Your task to perform on an android device: install app "Upside-Cash back on gas & food" Image 0: 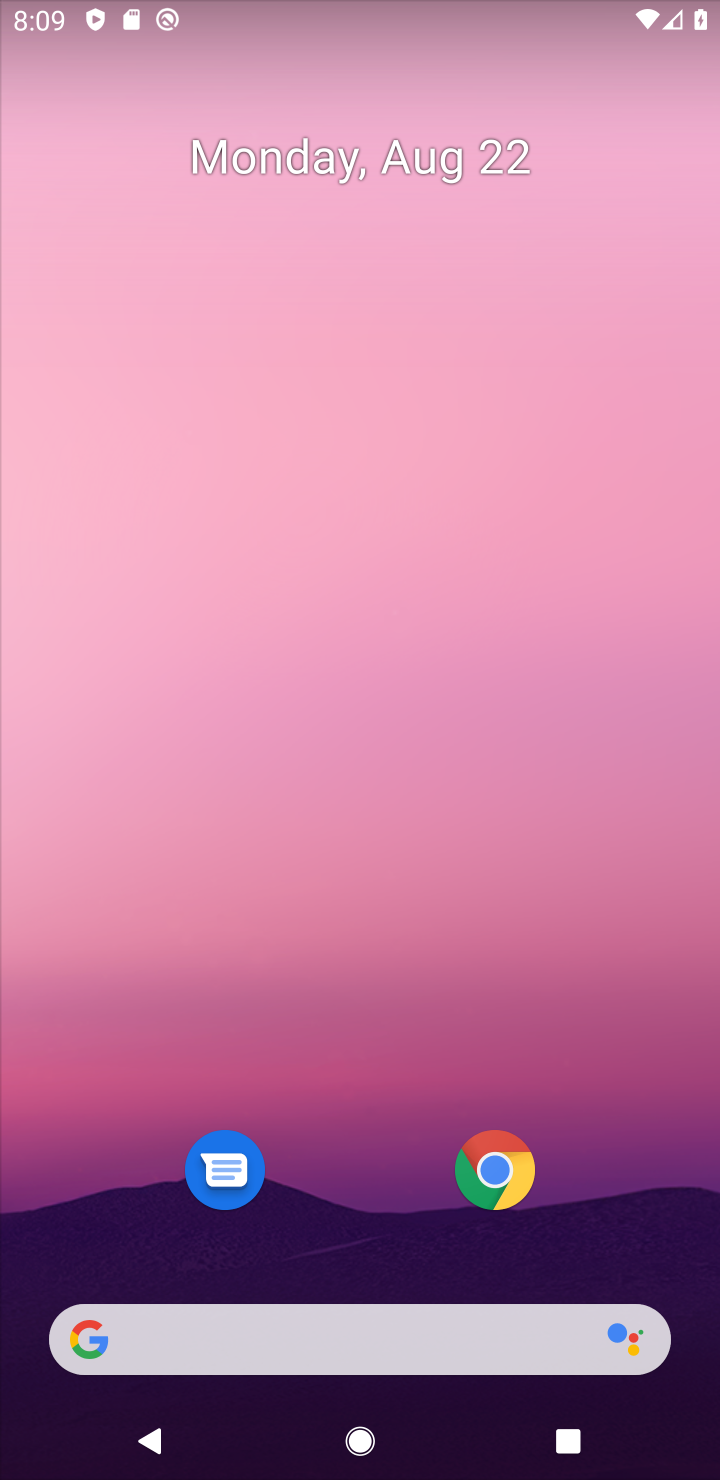
Step 0: drag from (386, 1262) to (599, 0)
Your task to perform on an android device: install app "Upside-Cash back on gas & food" Image 1: 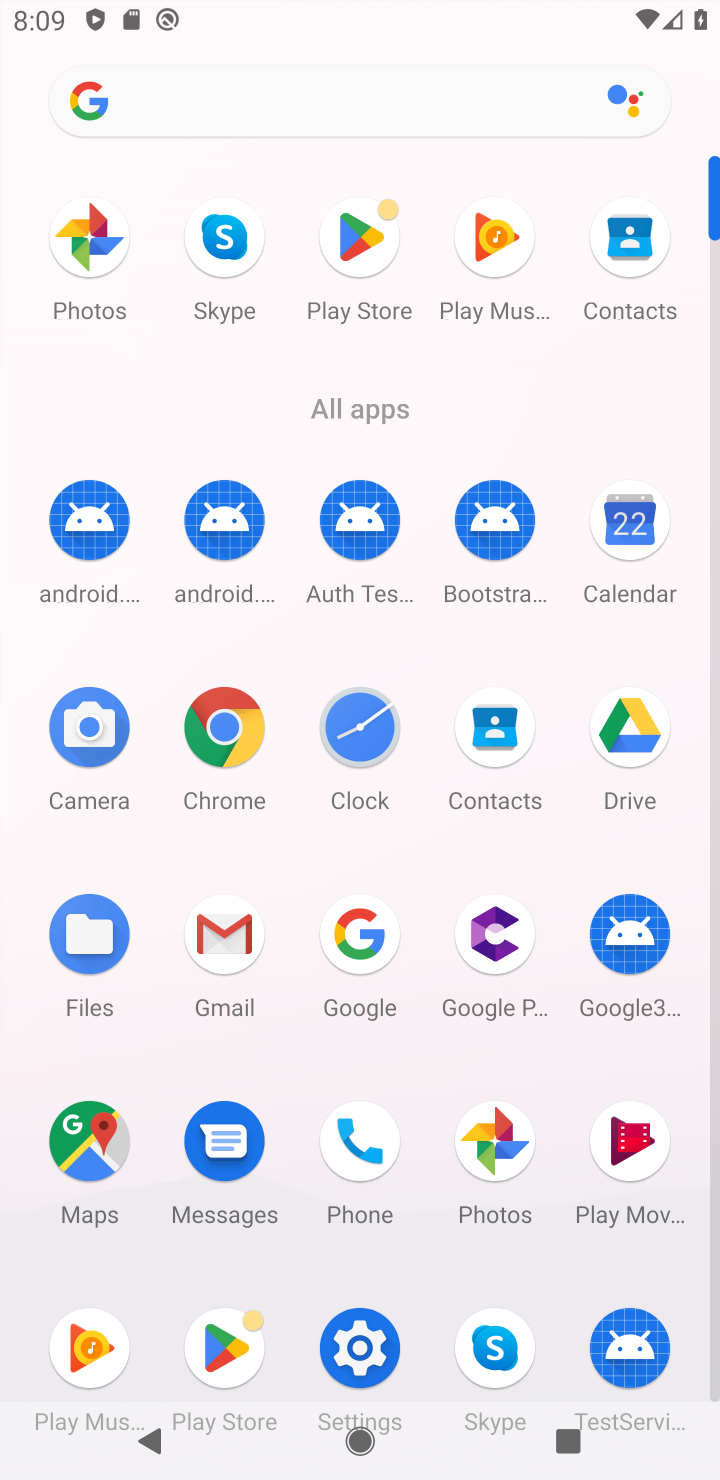
Step 1: click (386, 228)
Your task to perform on an android device: install app "Upside-Cash back on gas & food" Image 2: 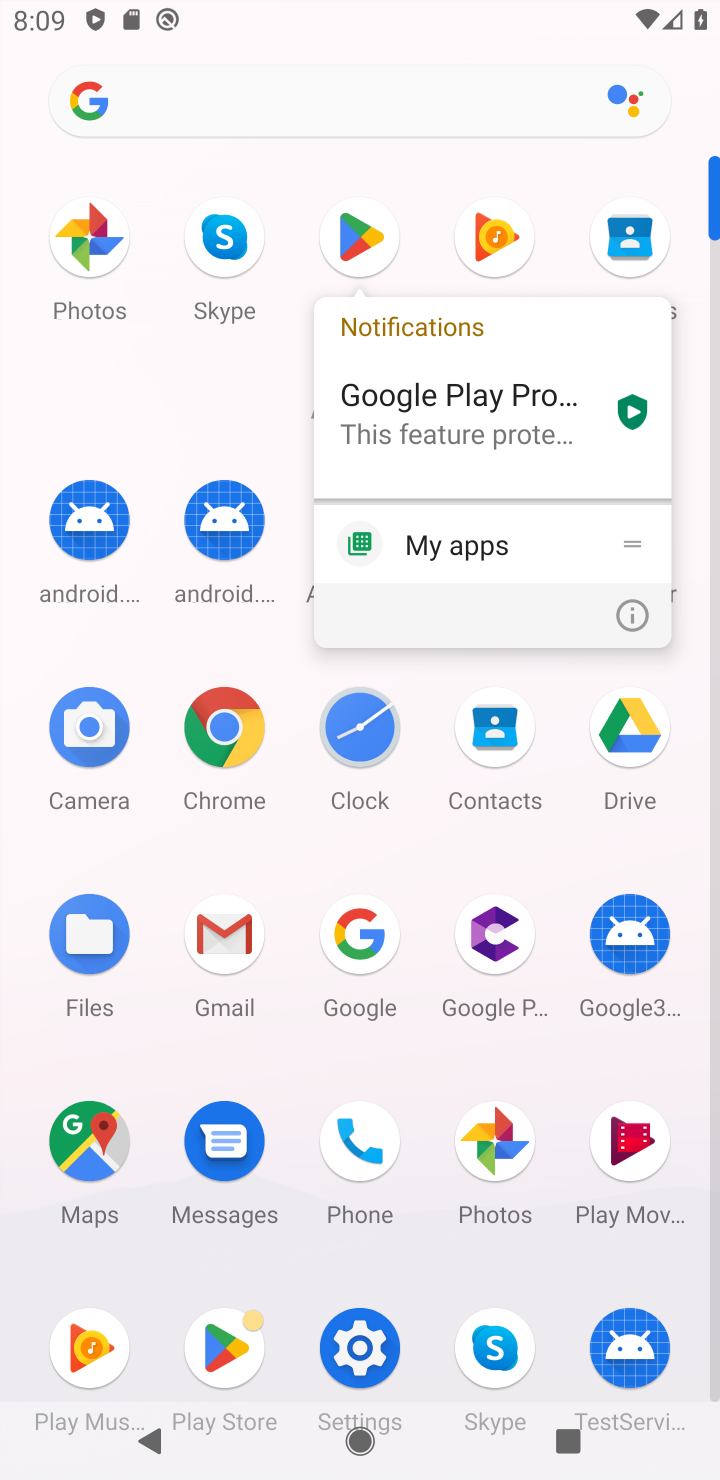
Step 2: click (380, 228)
Your task to perform on an android device: install app "Upside-Cash back on gas & food" Image 3: 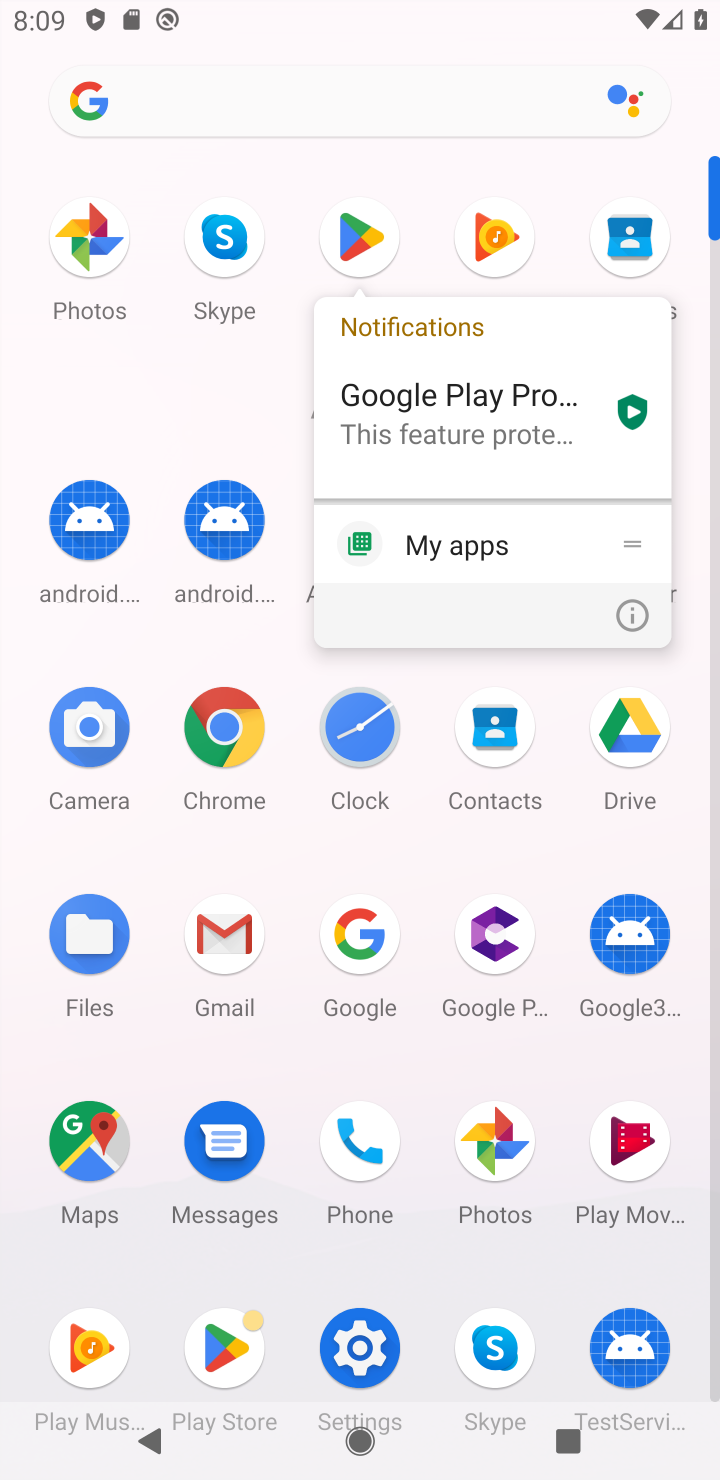
Step 3: click (367, 224)
Your task to perform on an android device: install app "Upside-Cash back on gas & food" Image 4: 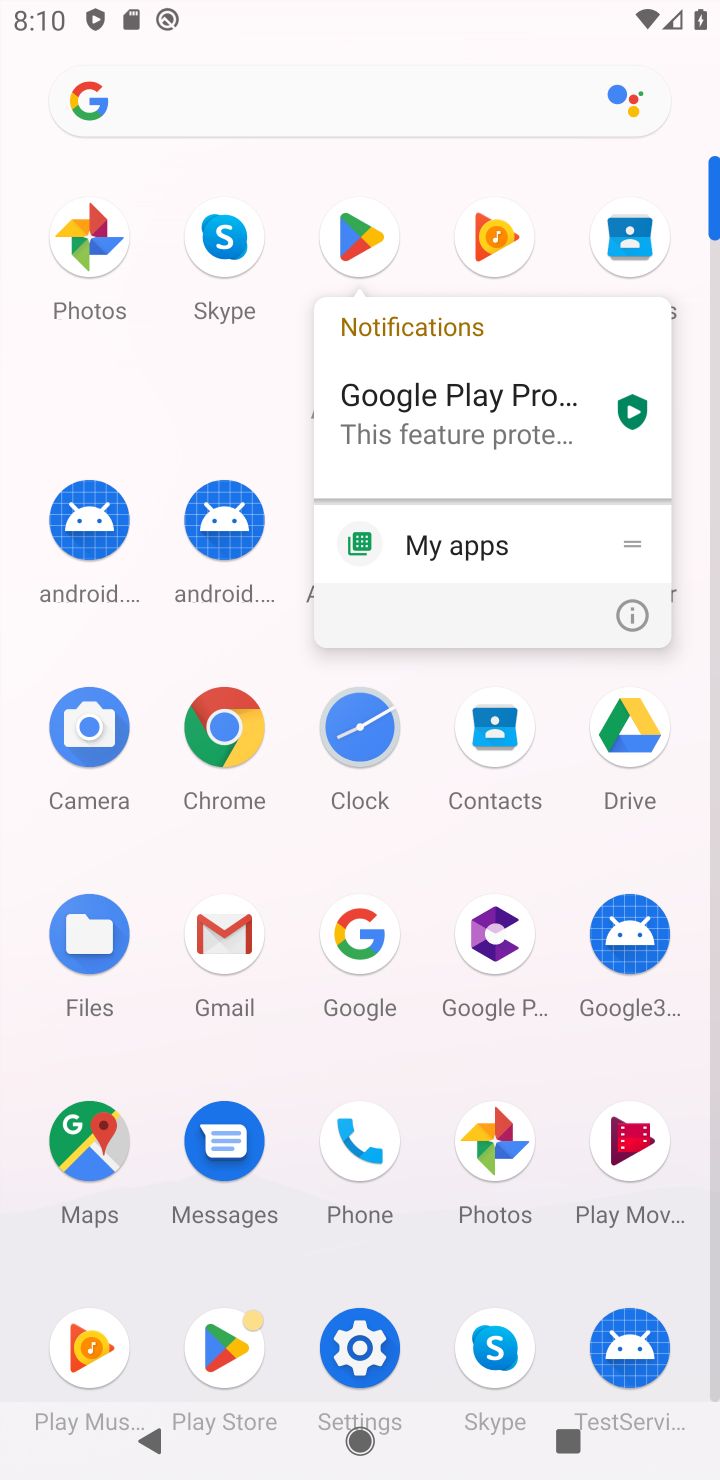
Step 4: click (352, 234)
Your task to perform on an android device: install app "Upside-Cash back on gas & food" Image 5: 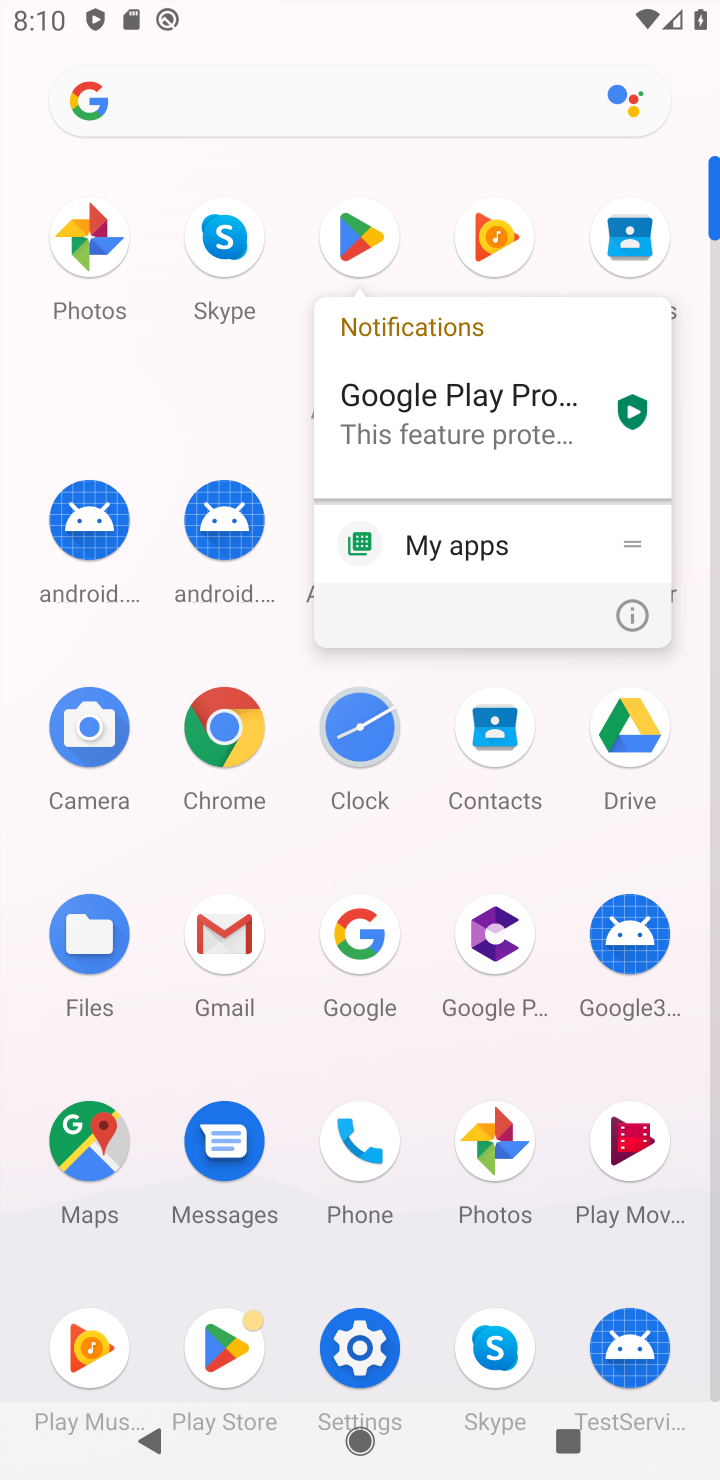
Step 5: click (354, 240)
Your task to perform on an android device: install app "Upside-Cash back on gas & food" Image 6: 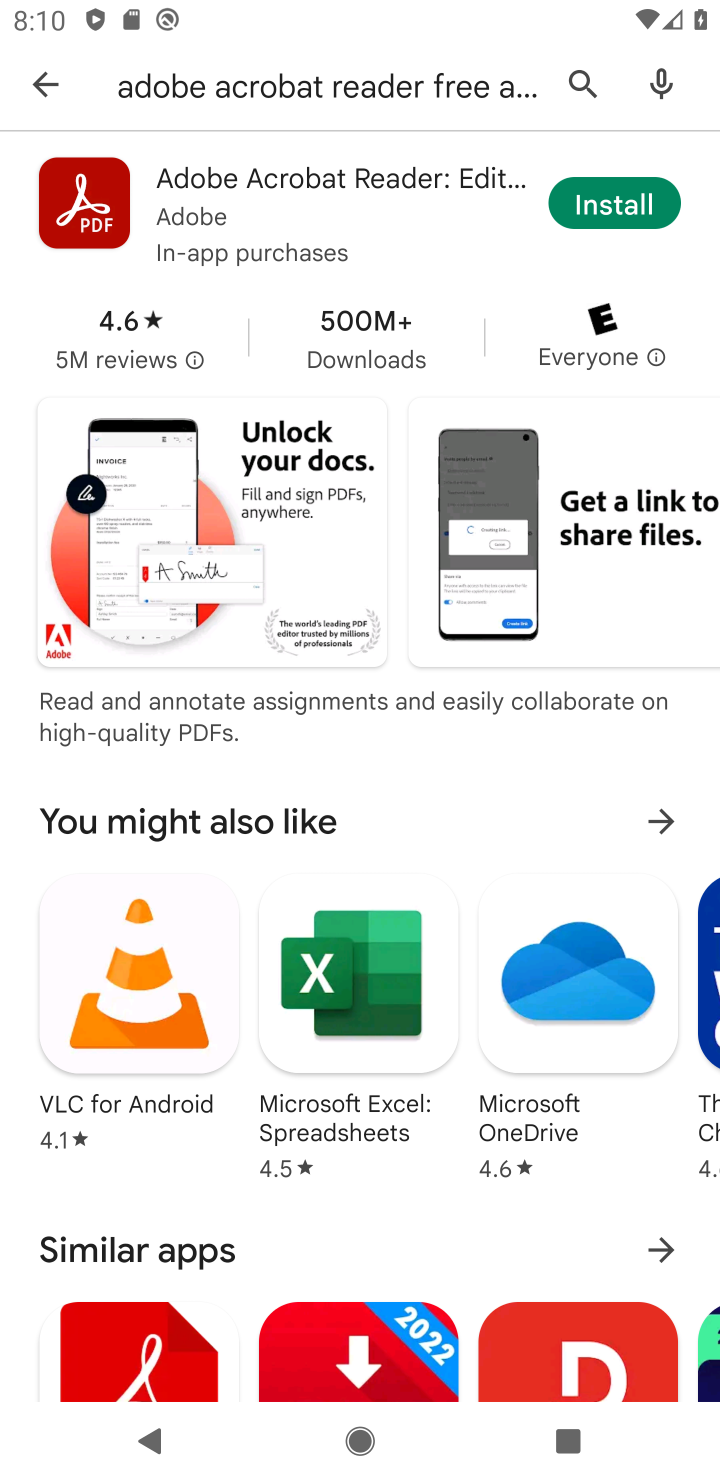
Step 6: click (572, 85)
Your task to perform on an android device: install app "Upside-Cash back on gas & food" Image 7: 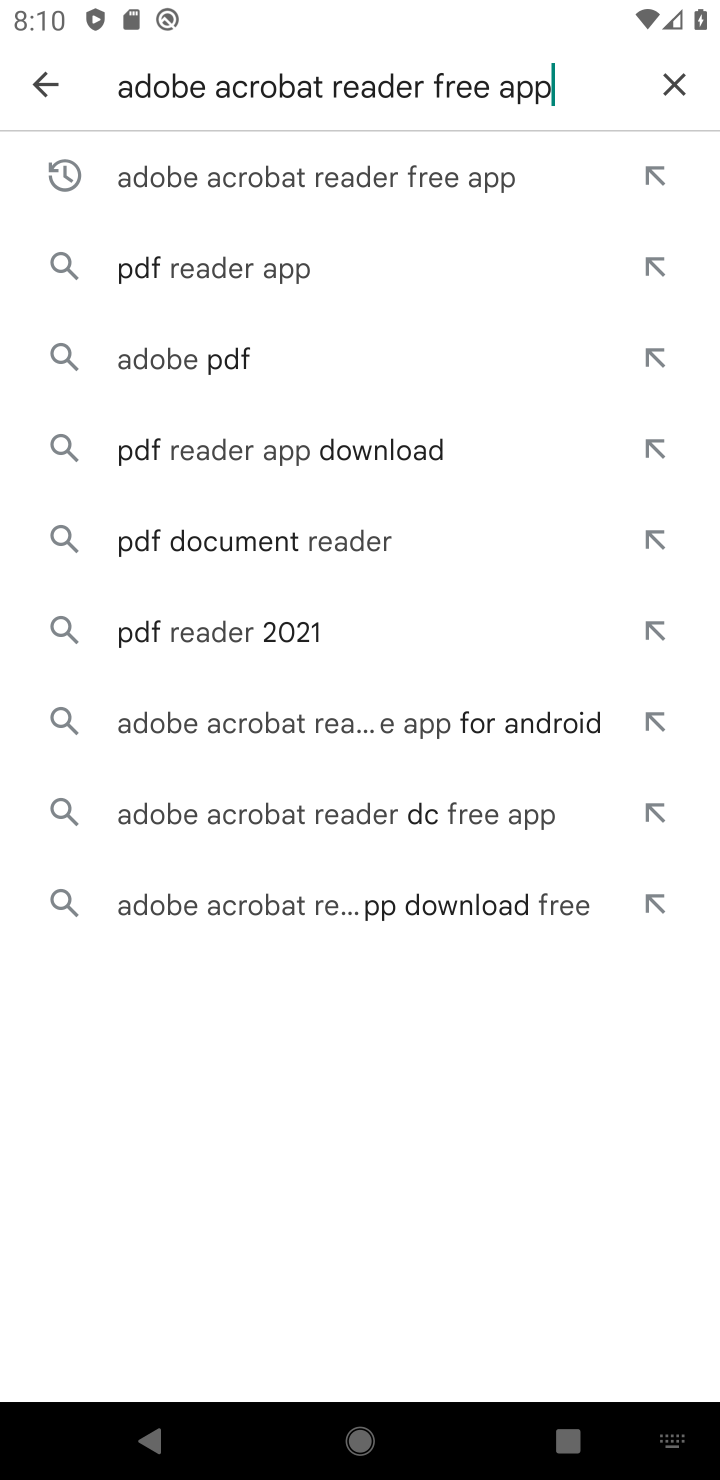
Step 7: click (679, 77)
Your task to perform on an android device: install app "Upside-Cash back on gas & food" Image 8: 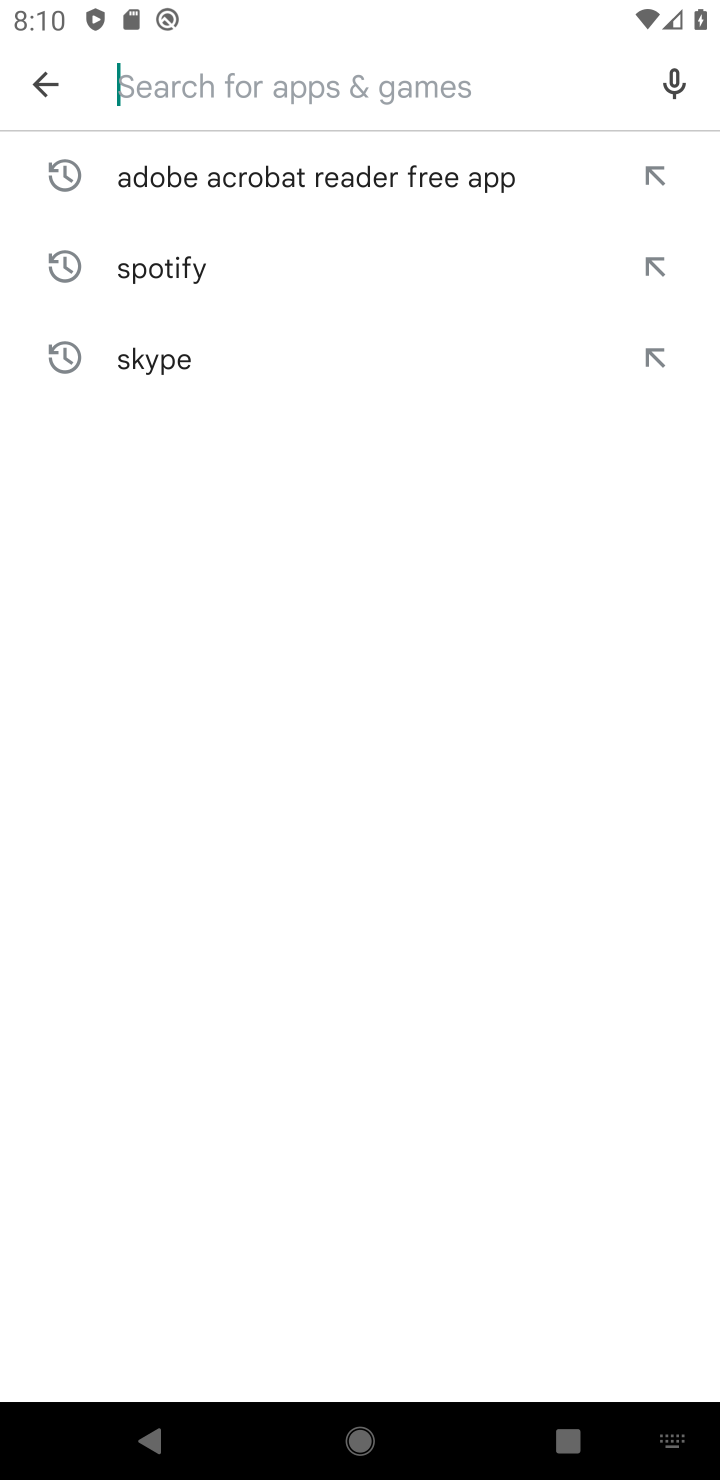
Step 8: click (243, 87)
Your task to perform on an android device: install app "Upside-Cash back on gas & food" Image 9: 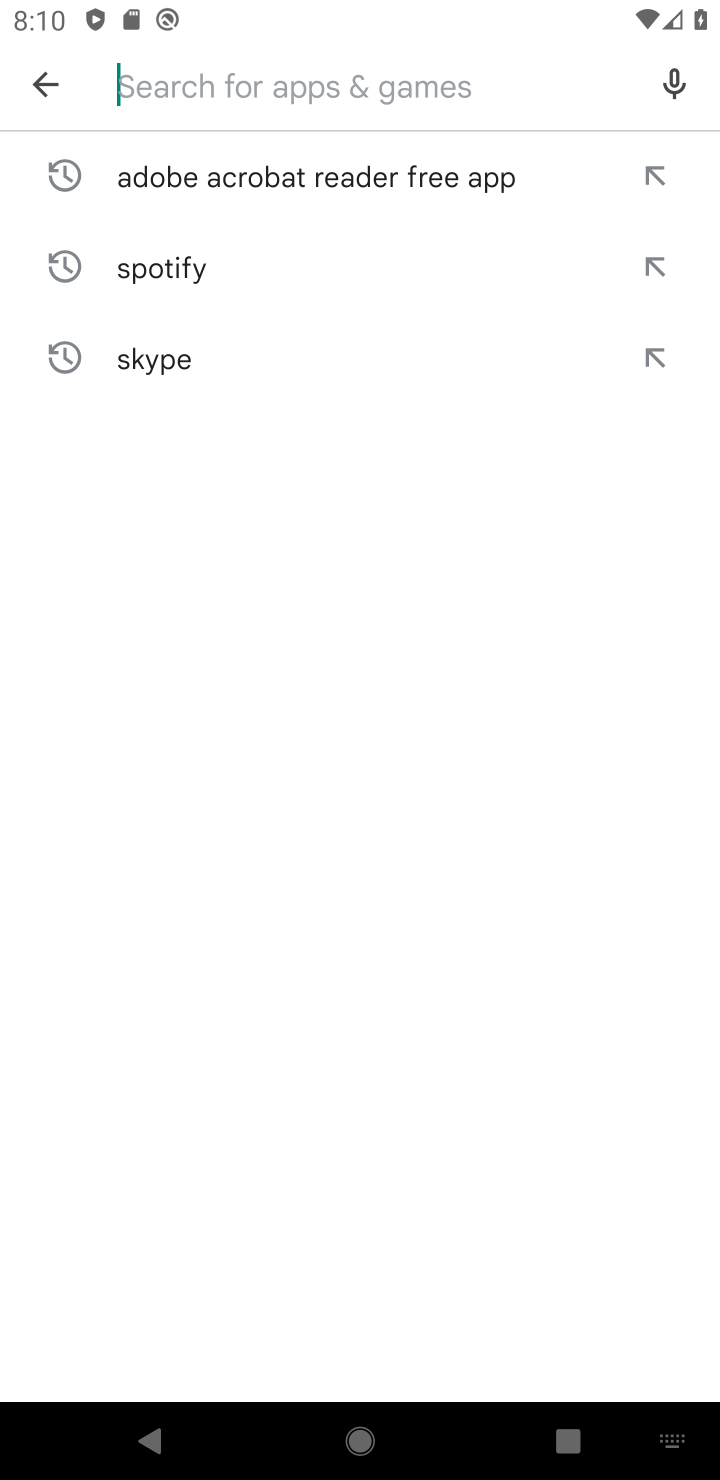
Step 9: type "upside"
Your task to perform on an android device: install app "Upside-Cash back on gas & food" Image 10: 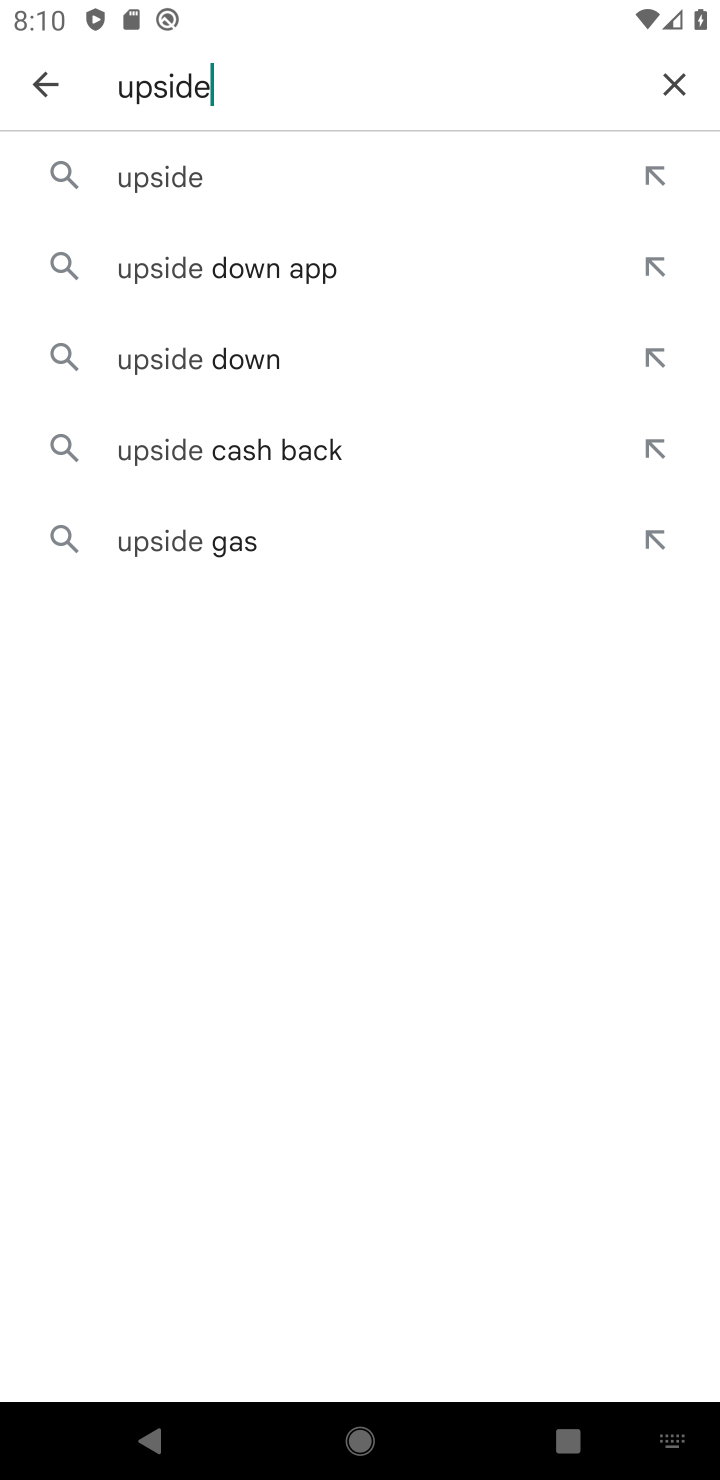
Step 10: click (202, 167)
Your task to perform on an android device: install app "Upside-Cash back on gas & food" Image 11: 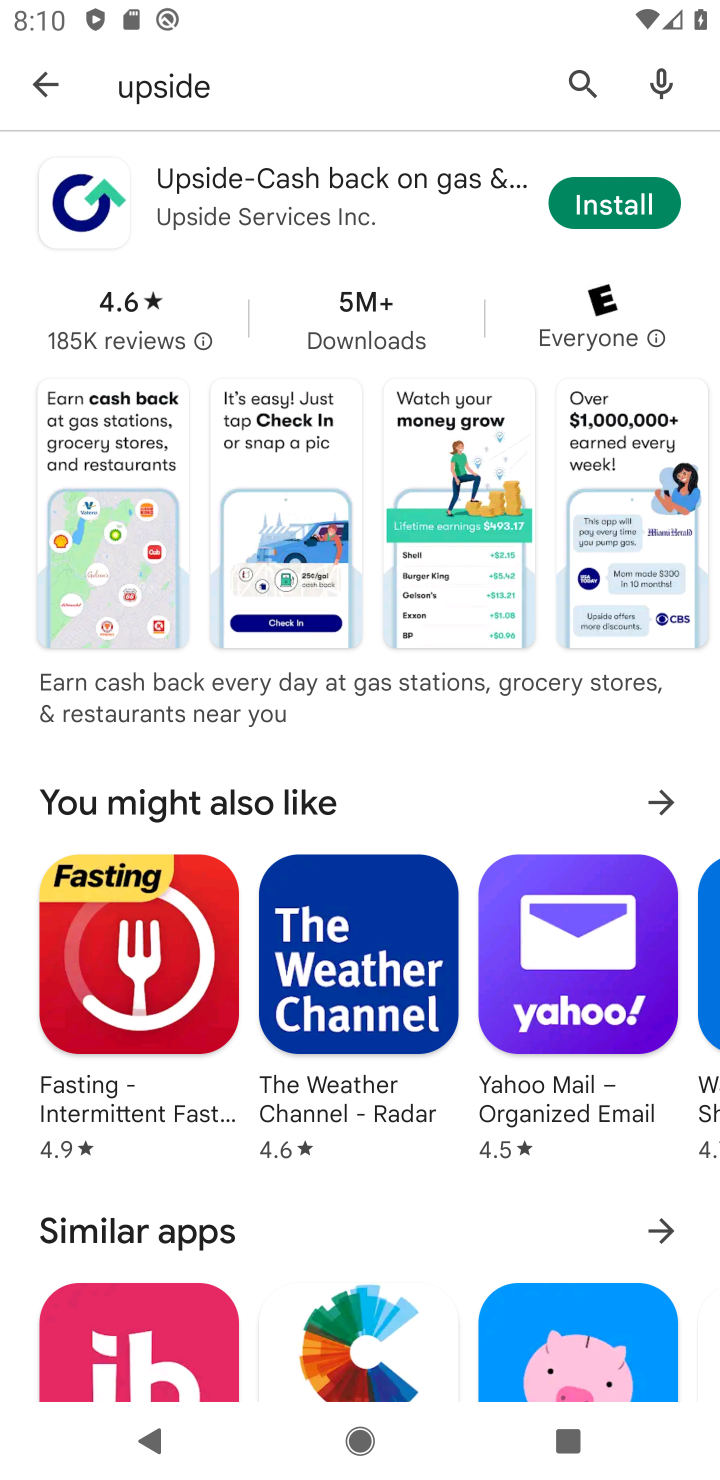
Step 11: click (601, 217)
Your task to perform on an android device: install app "Upside-Cash back on gas & food" Image 12: 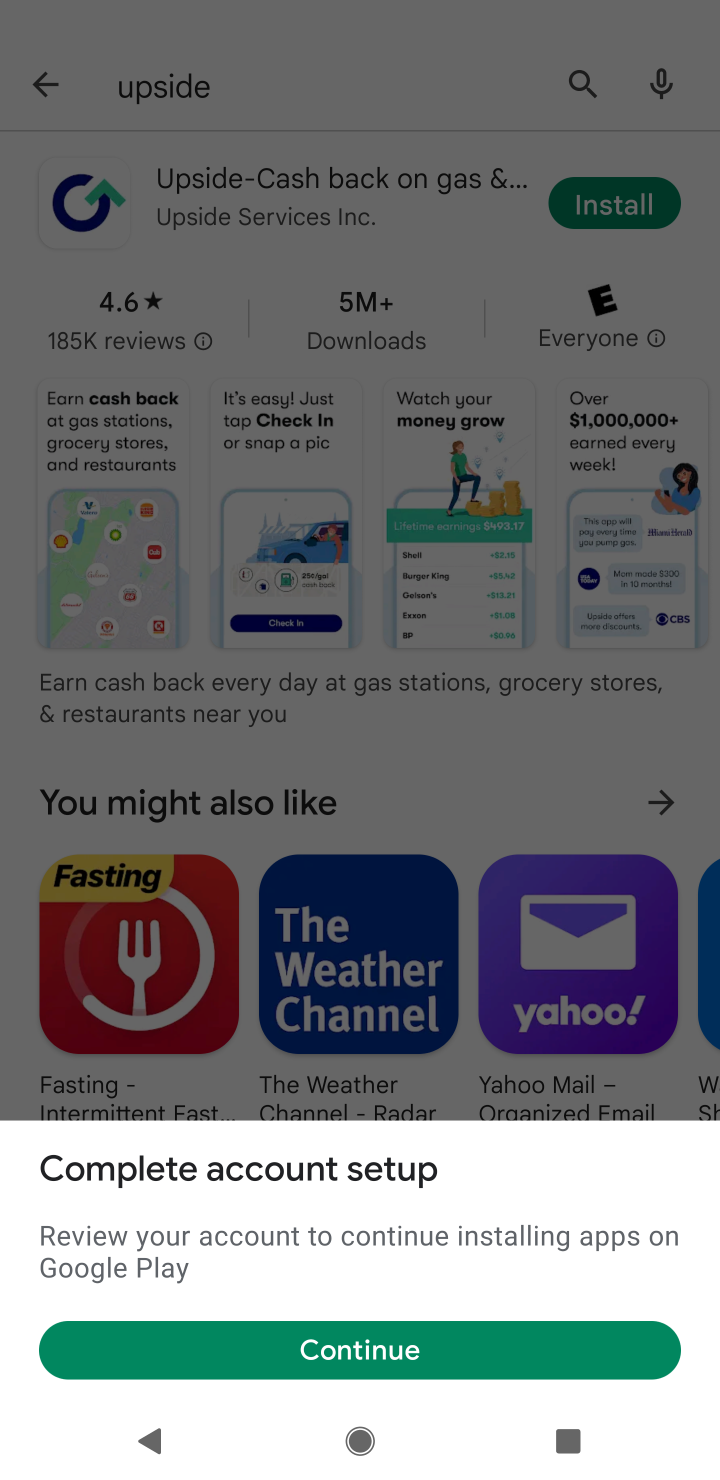
Step 12: click (372, 1362)
Your task to perform on an android device: install app "Upside-Cash back on gas & food" Image 13: 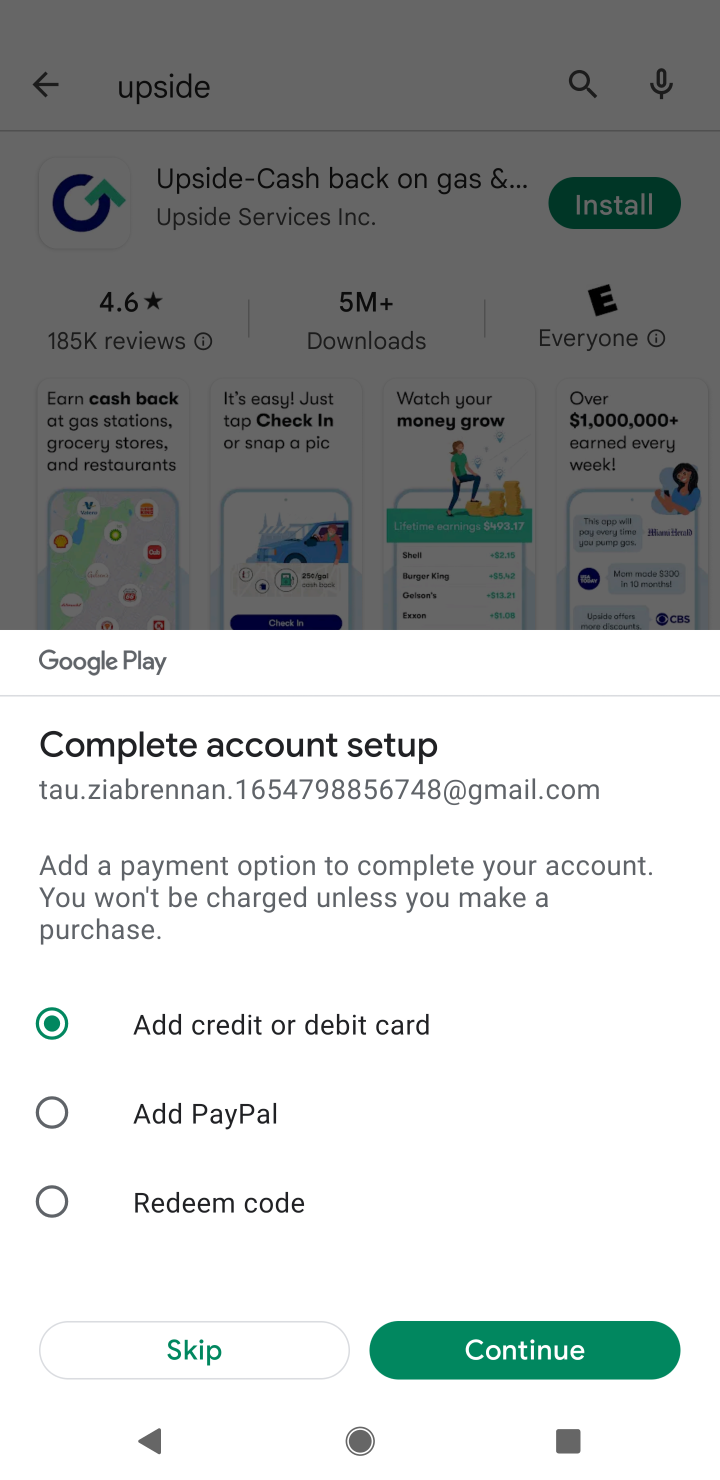
Step 13: click (208, 1341)
Your task to perform on an android device: install app "Upside-Cash back on gas & food" Image 14: 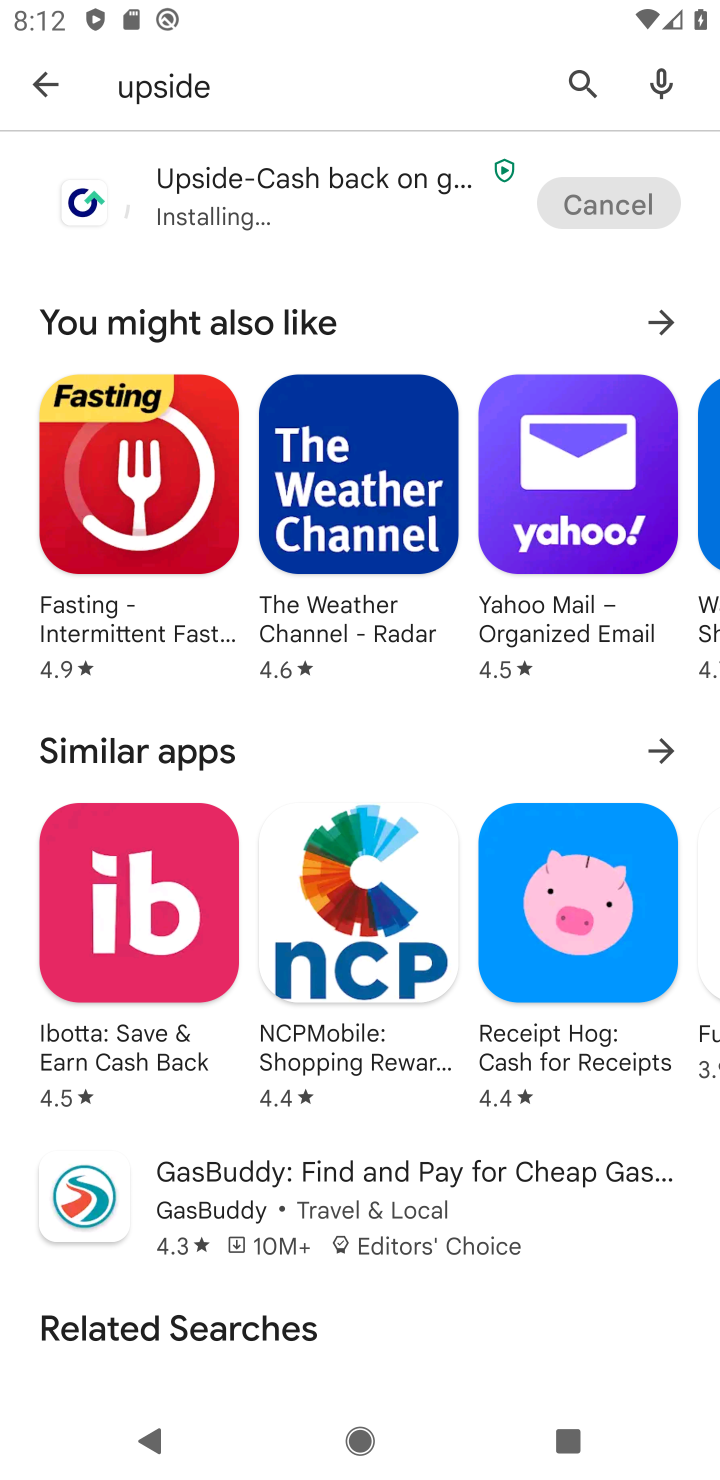
Step 14: press back button
Your task to perform on an android device: install app "Upside-Cash back on gas & food" Image 15: 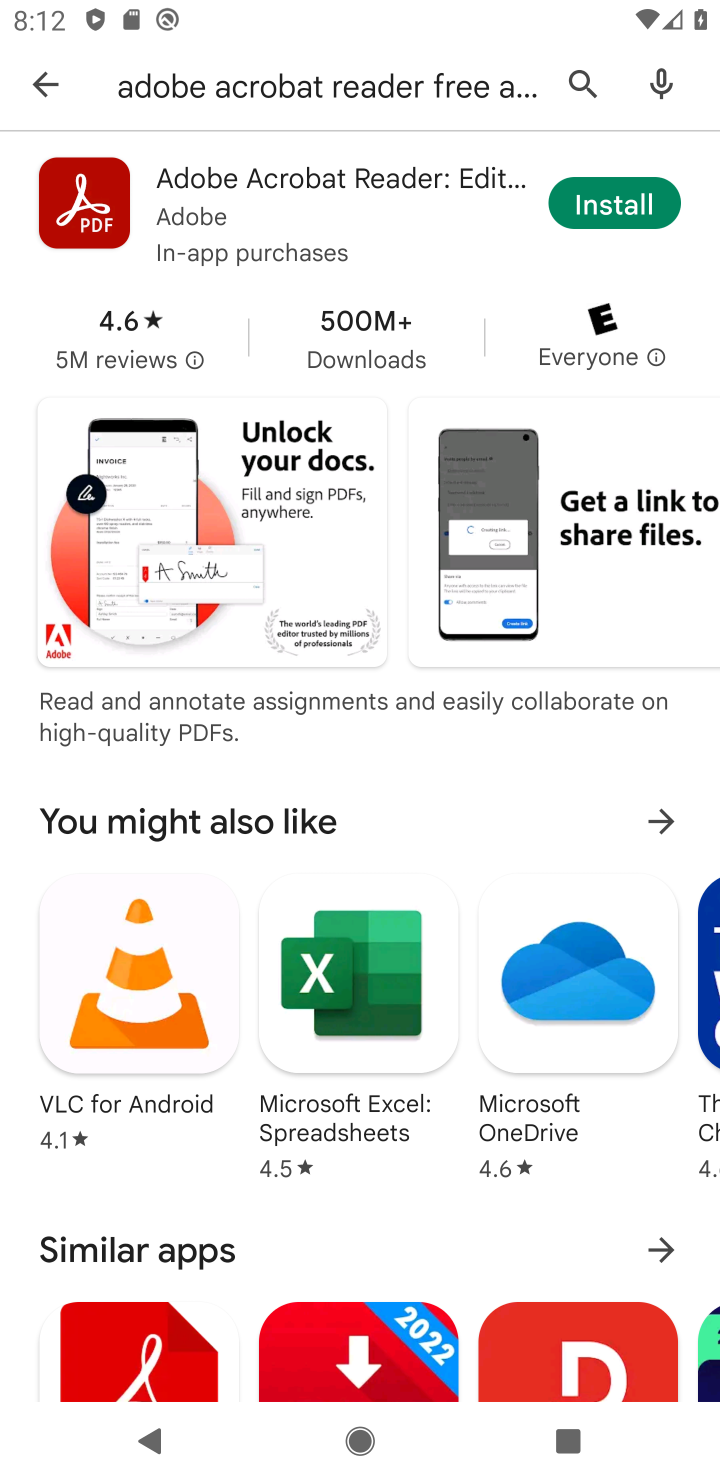
Step 15: click (591, 86)
Your task to perform on an android device: install app "Upside-Cash back on gas & food" Image 16: 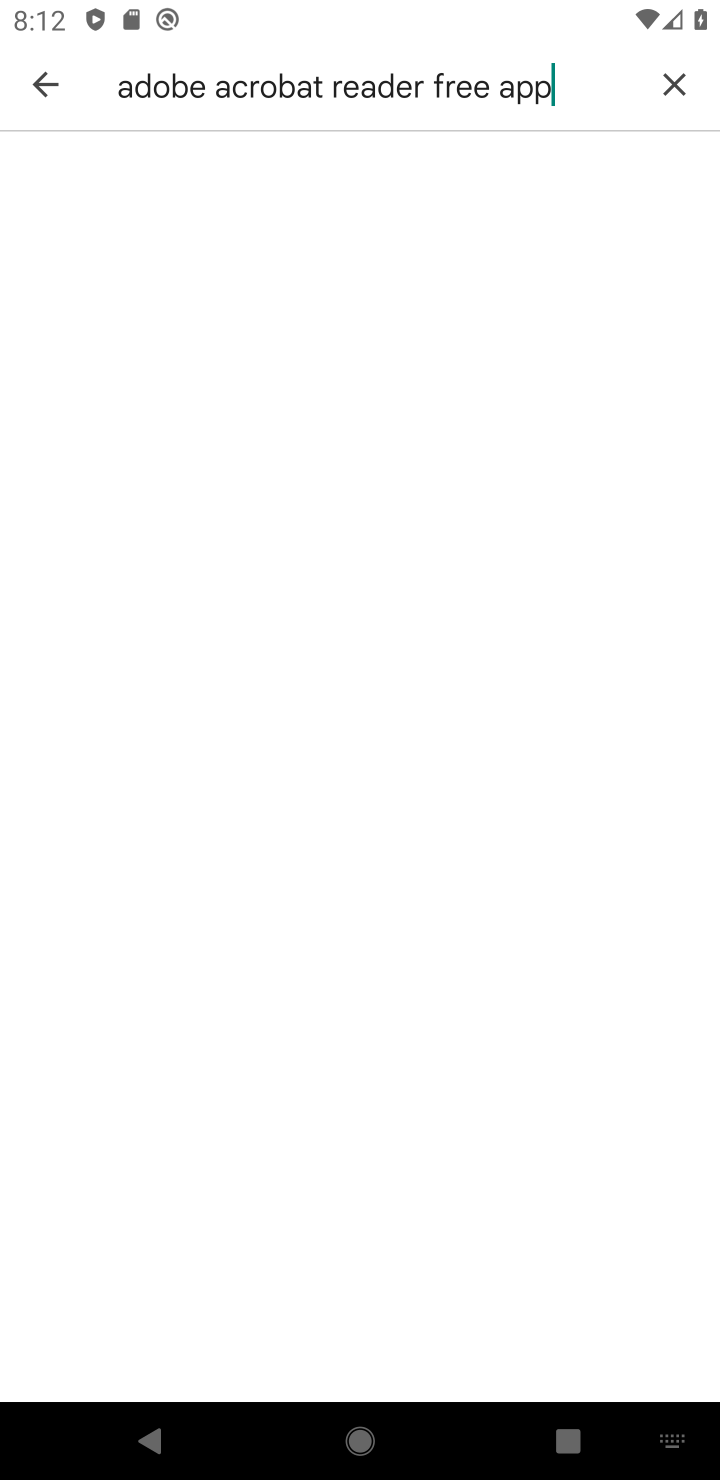
Step 16: click (683, 70)
Your task to perform on an android device: install app "Upside-Cash back on gas & food" Image 17: 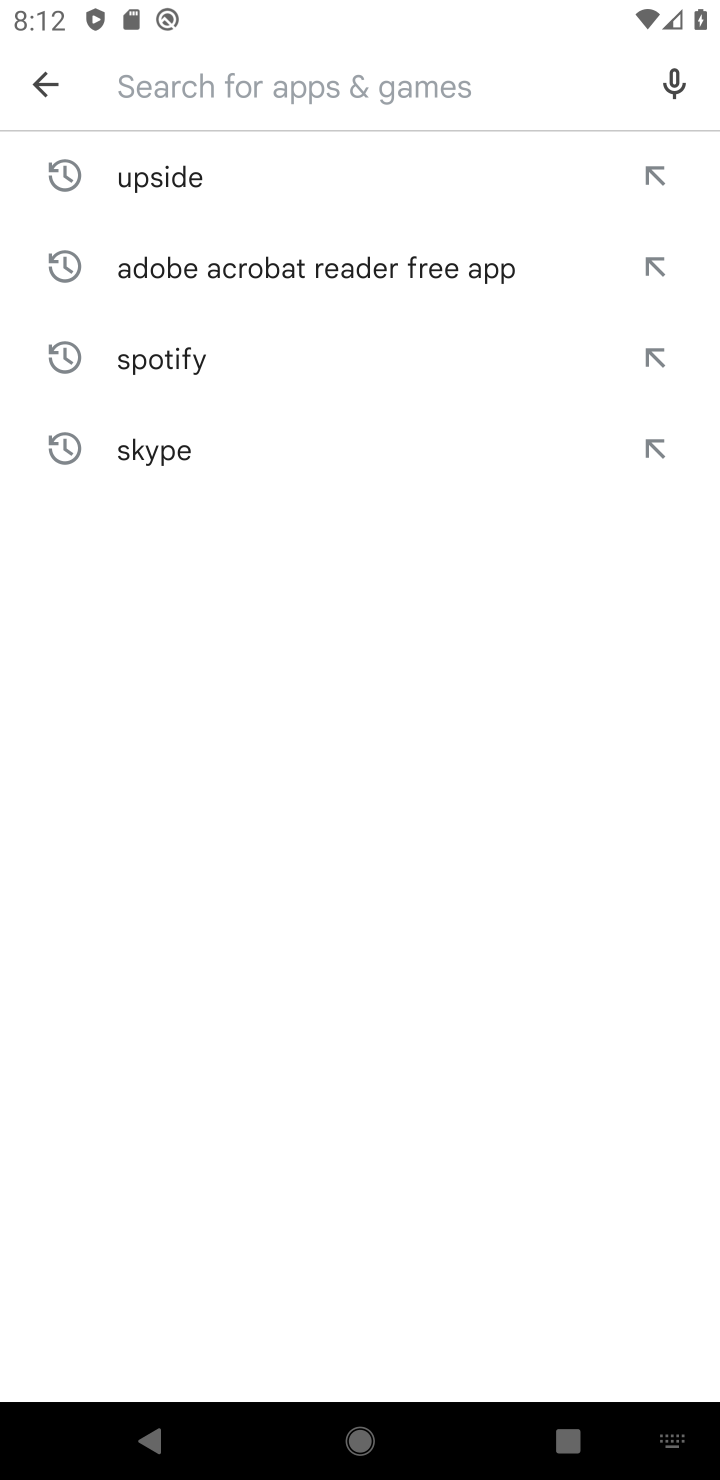
Step 17: click (234, 157)
Your task to perform on an android device: install app "Upside-Cash back on gas & food" Image 18: 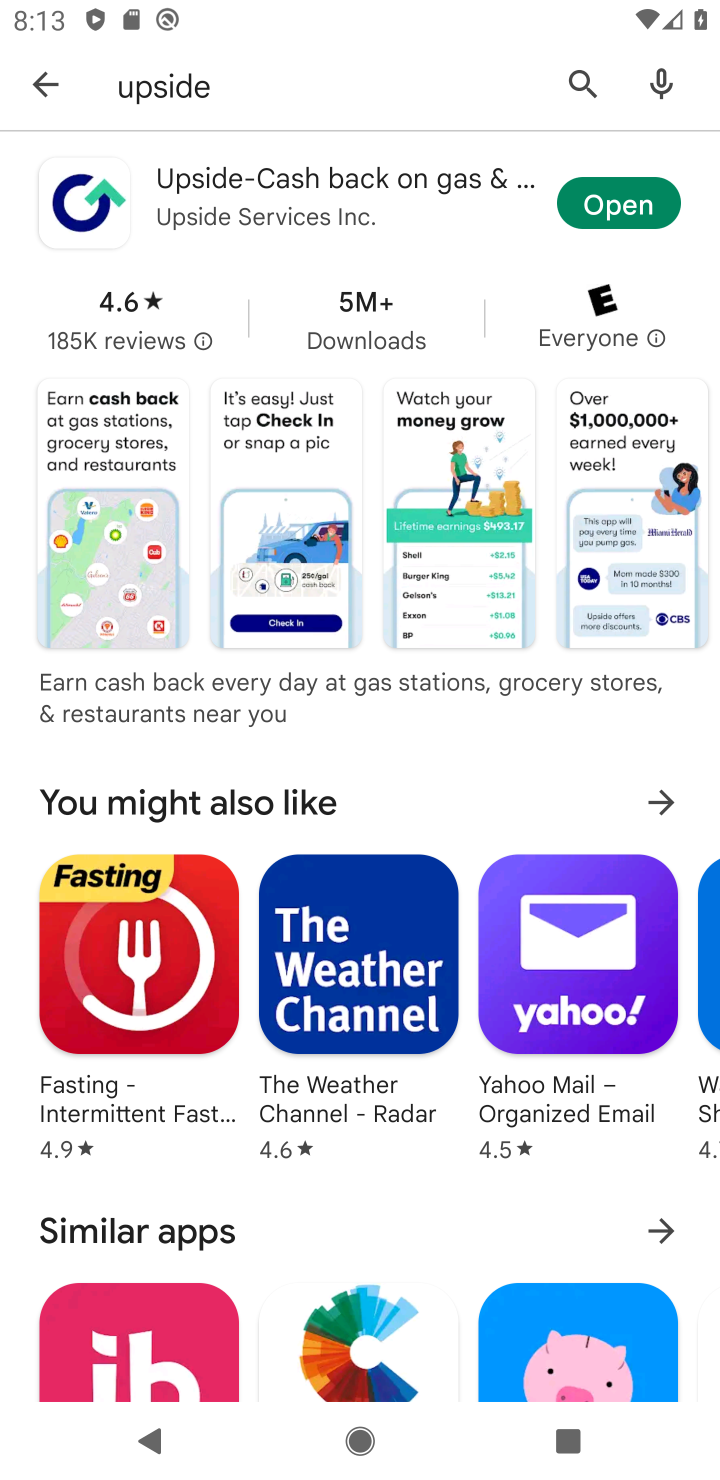
Step 18: task complete